Your task to perform on an android device: What's on my calendar tomorrow? Image 0: 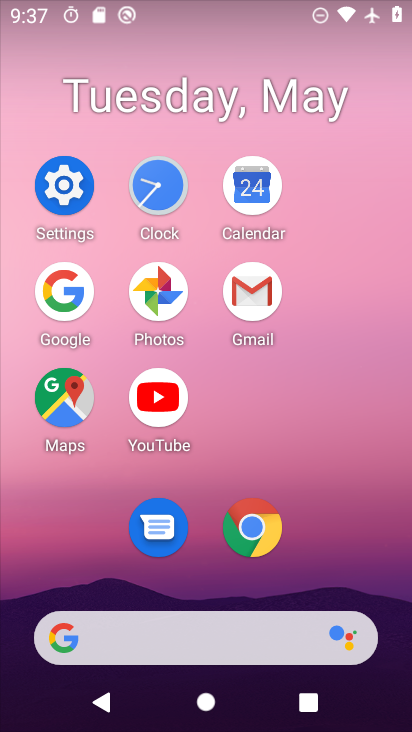
Step 0: click (266, 197)
Your task to perform on an android device: What's on my calendar tomorrow? Image 1: 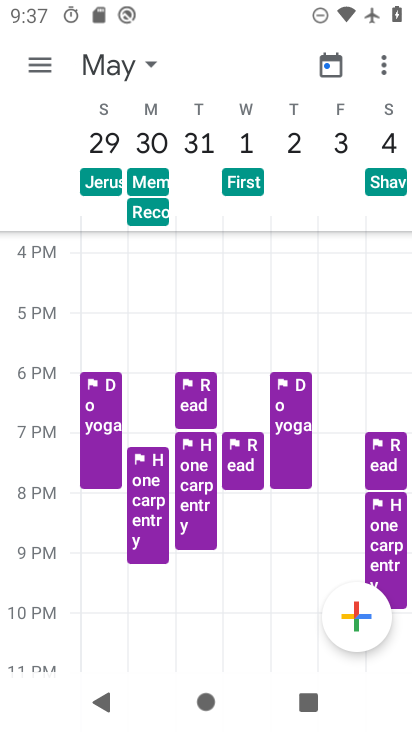
Step 1: drag from (113, 145) to (403, 141)
Your task to perform on an android device: What's on my calendar tomorrow? Image 2: 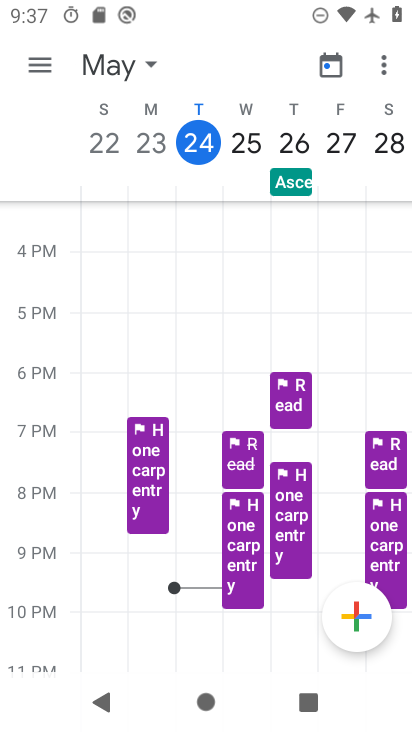
Step 2: click (300, 143)
Your task to perform on an android device: What's on my calendar tomorrow? Image 3: 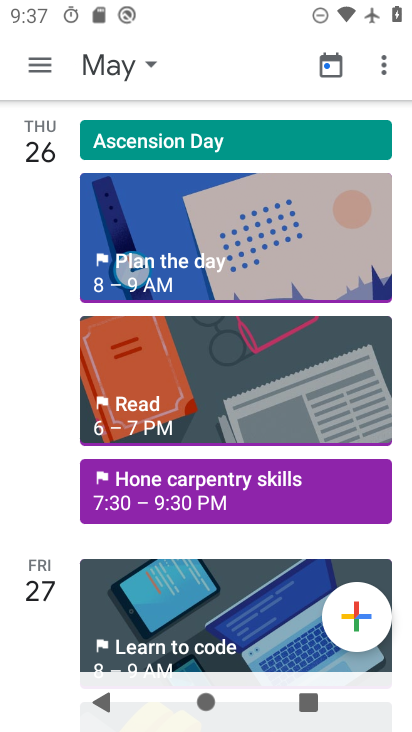
Step 3: task complete